Your task to perform on an android device: turn smart compose on in the gmail app Image 0: 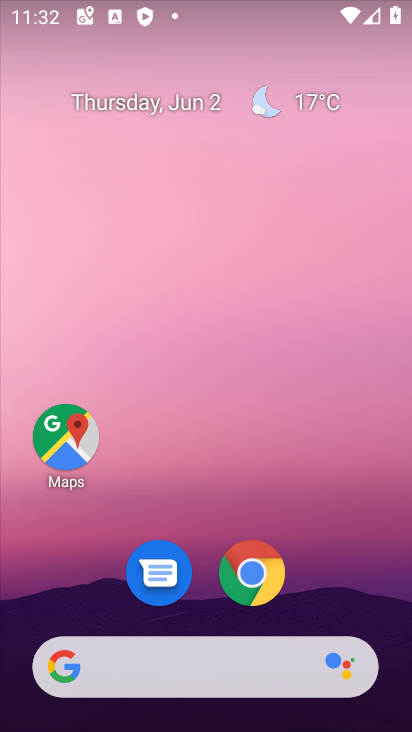
Step 0: drag from (387, 565) to (291, 0)
Your task to perform on an android device: turn smart compose on in the gmail app Image 1: 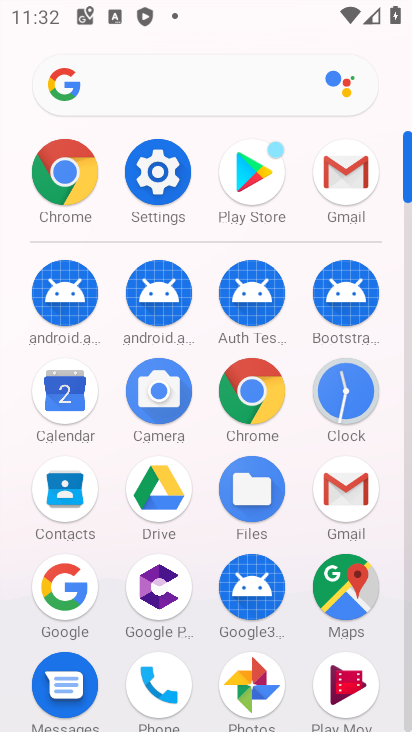
Step 1: click (372, 196)
Your task to perform on an android device: turn smart compose on in the gmail app Image 2: 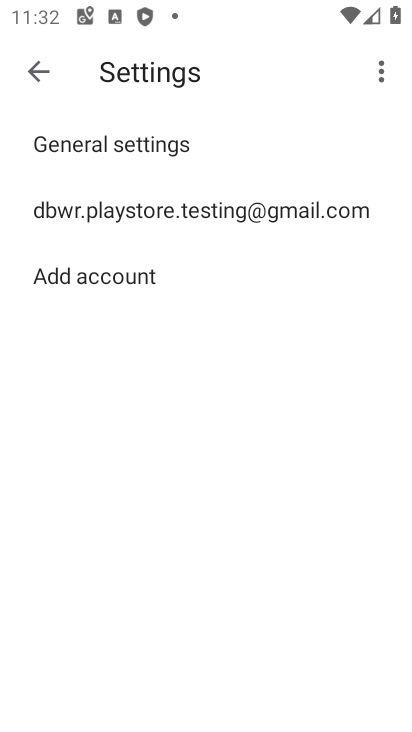
Step 2: click (34, 77)
Your task to perform on an android device: turn smart compose on in the gmail app Image 3: 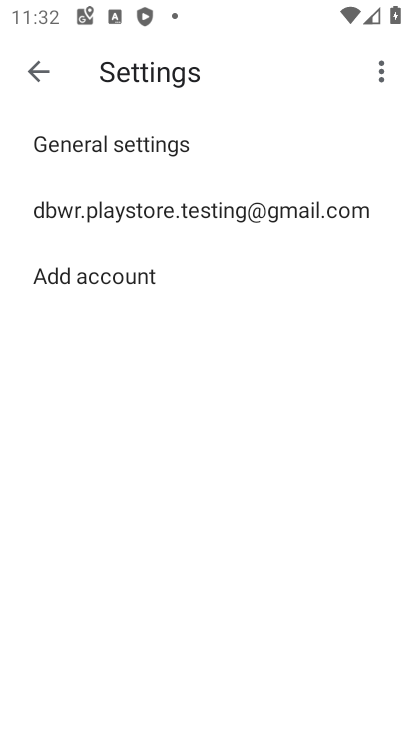
Step 3: click (34, 76)
Your task to perform on an android device: turn smart compose on in the gmail app Image 4: 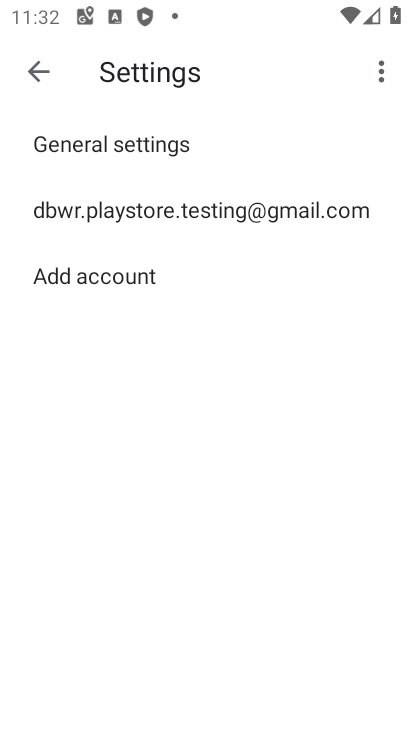
Step 4: click (50, 71)
Your task to perform on an android device: turn smart compose on in the gmail app Image 5: 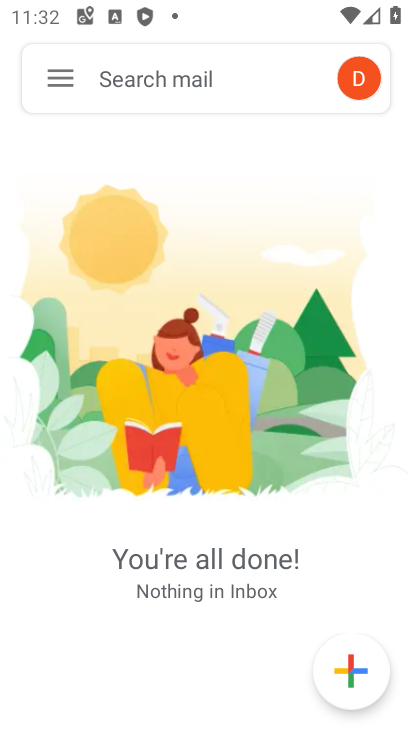
Step 5: click (50, 70)
Your task to perform on an android device: turn smart compose on in the gmail app Image 6: 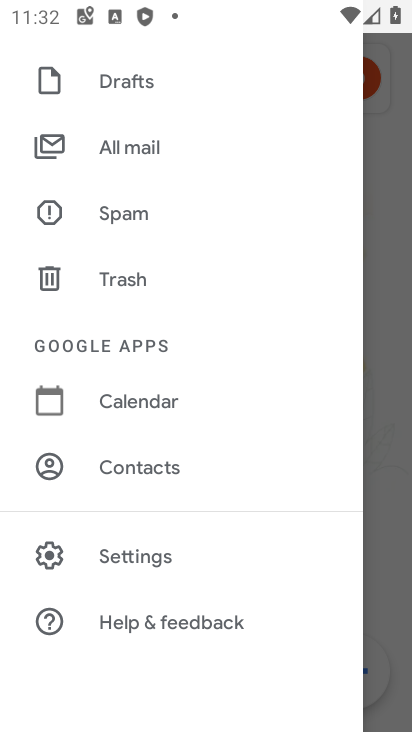
Step 6: click (77, 546)
Your task to perform on an android device: turn smart compose on in the gmail app Image 7: 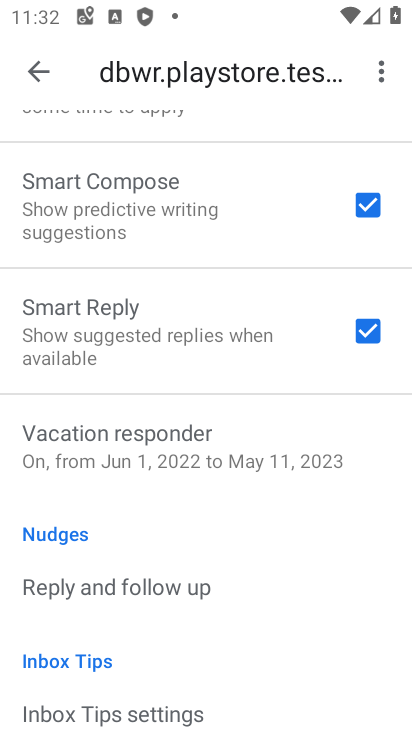
Step 7: drag from (118, 255) to (190, 592)
Your task to perform on an android device: turn smart compose on in the gmail app Image 8: 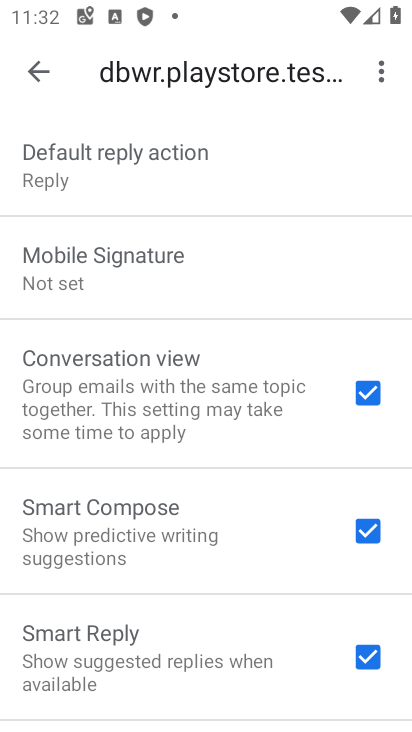
Step 8: click (178, 556)
Your task to perform on an android device: turn smart compose on in the gmail app Image 9: 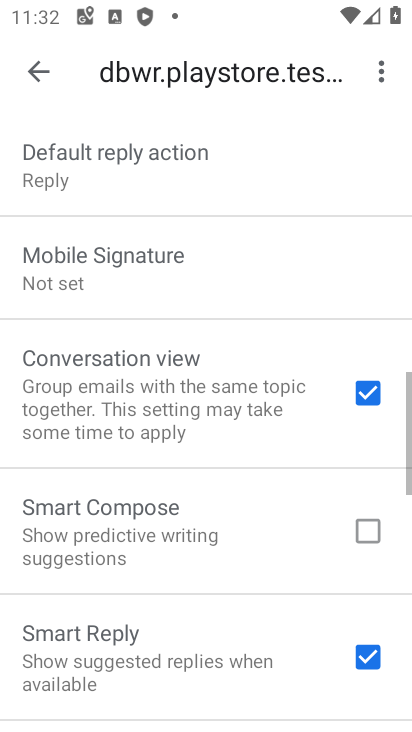
Step 9: click (190, 548)
Your task to perform on an android device: turn smart compose on in the gmail app Image 10: 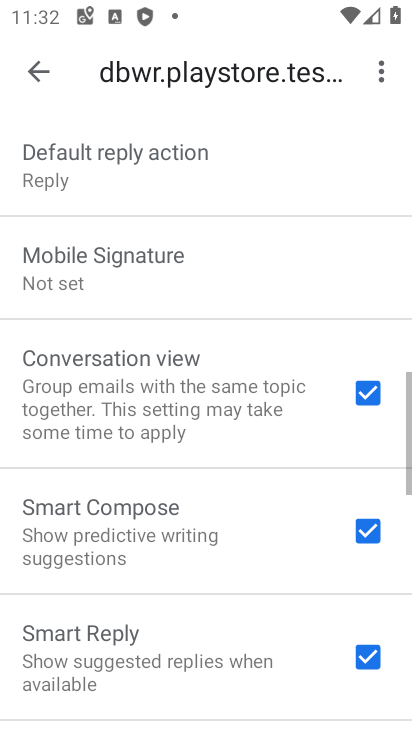
Step 10: task complete